Your task to perform on an android device: turn on wifi Image 0: 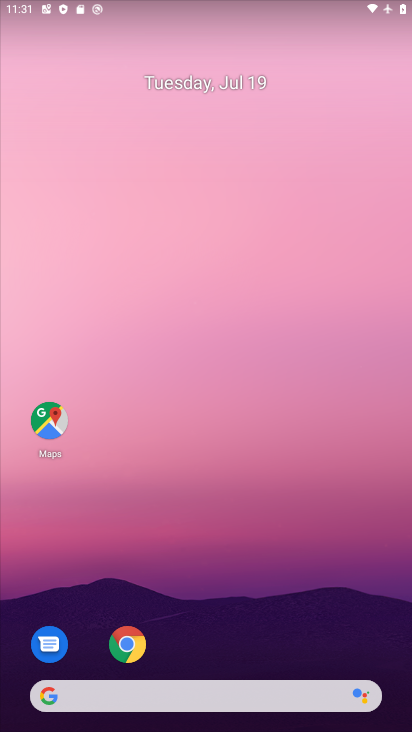
Step 0: drag from (34, 706) to (115, 299)
Your task to perform on an android device: turn on wifi Image 1: 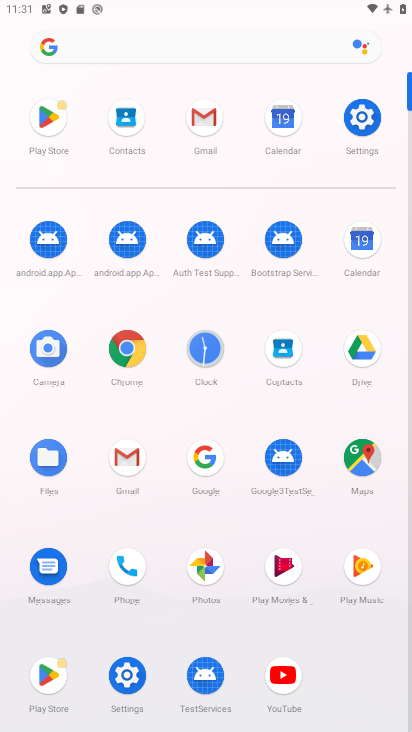
Step 1: click (116, 691)
Your task to perform on an android device: turn on wifi Image 2: 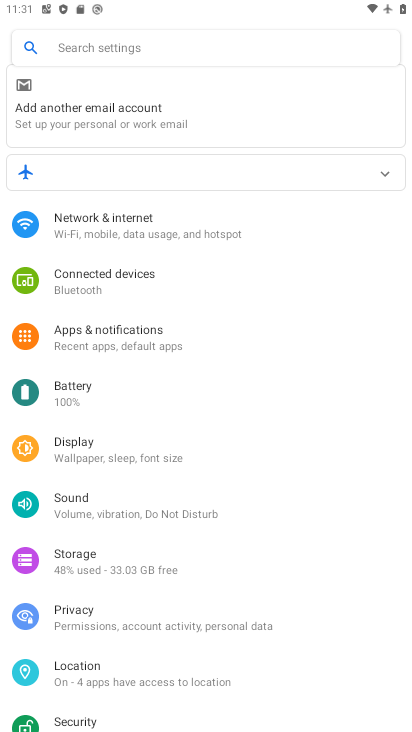
Step 2: click (123, 255)
Your task to perform on an android device: turn on wifi Image 3: 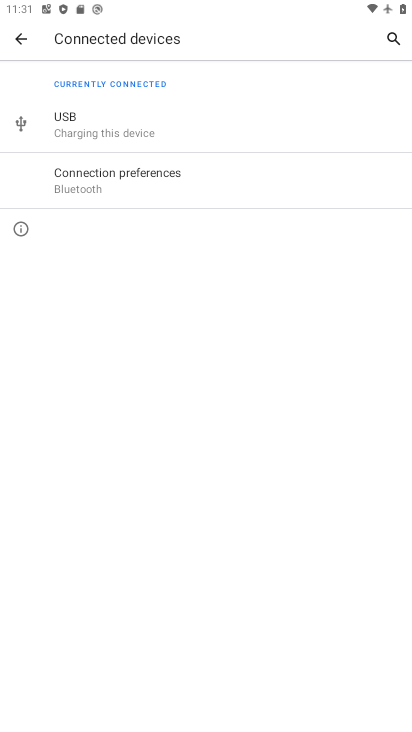
Step 3: click (26, 43)
Your task to perform on an android device: turn on wifi Image 4: 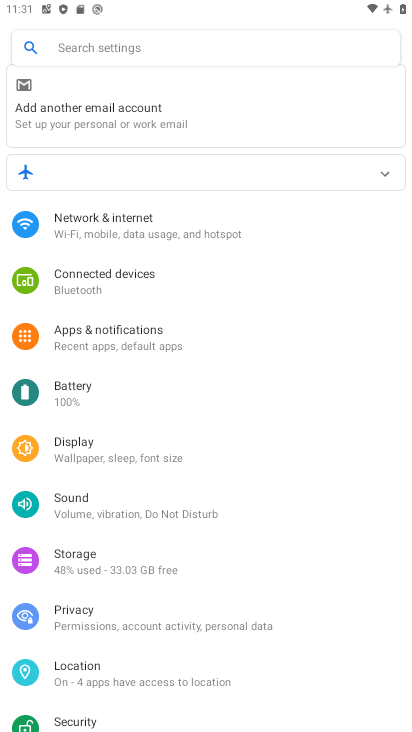
Step 4: click (144, 200)
Your task to perform on an android device: turn on wifi Image 5: 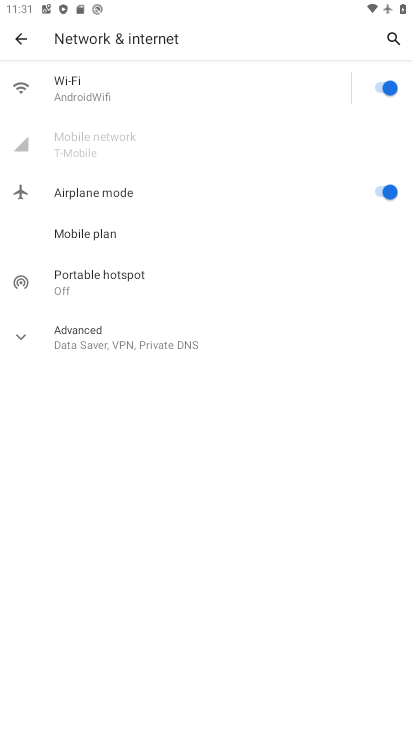
Step 5: click (391, 188)
Your task to perform on an android device: turn on wifi Image 6: 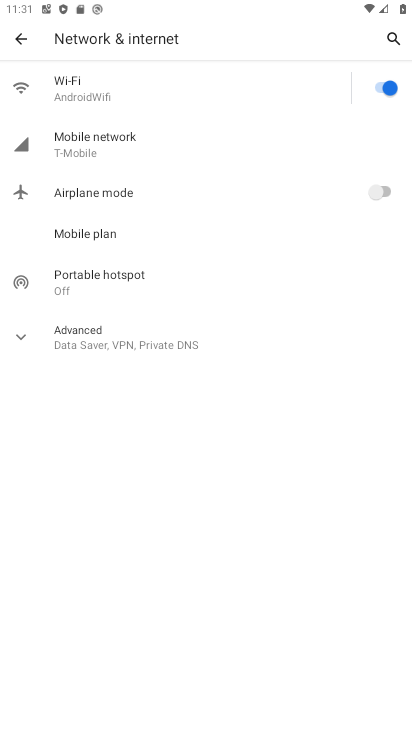
Step 6: task complete